Your task to perform on an android device: empty trash in the gmail app Image 0: 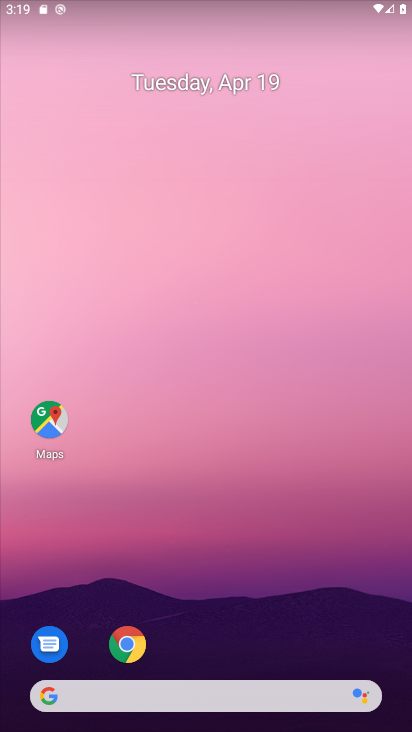
Step 0: drag from (217, 667) to (340, 104)
Your task to perform on an android device: empty trash in the gmail app Image 1: 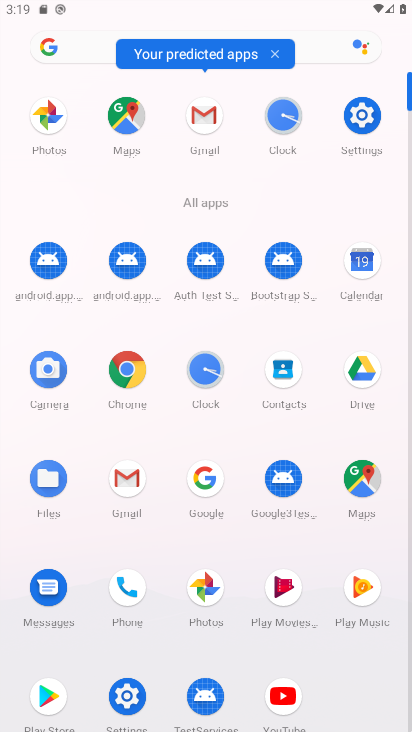
Step 1: click (132, 490)
Your task to perform on an android device: empty trash in the gmail app Image 2: 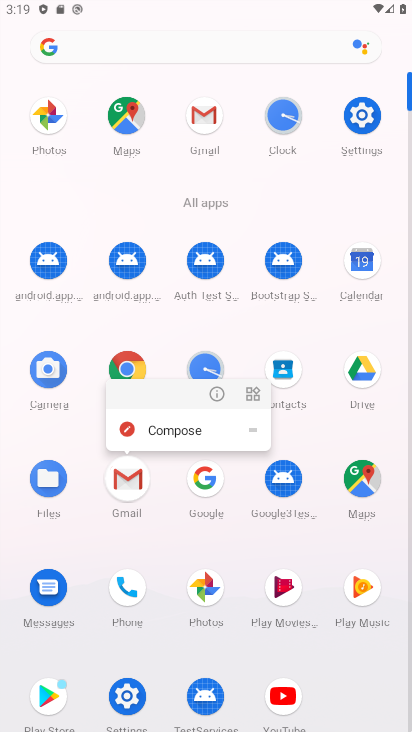
Step 2: click (125, 479)
Your task to perform on an android device: empty trash in the gmail app Image 3: 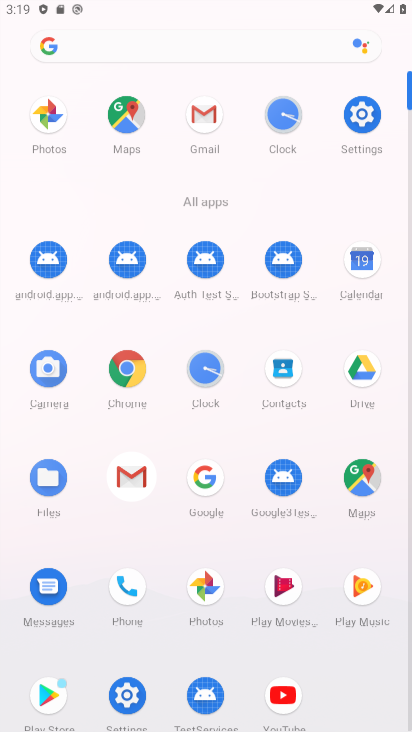
Step 3: click (125, 479)
Your task to perform on an android device: empty trash in the gmail app Image 4: 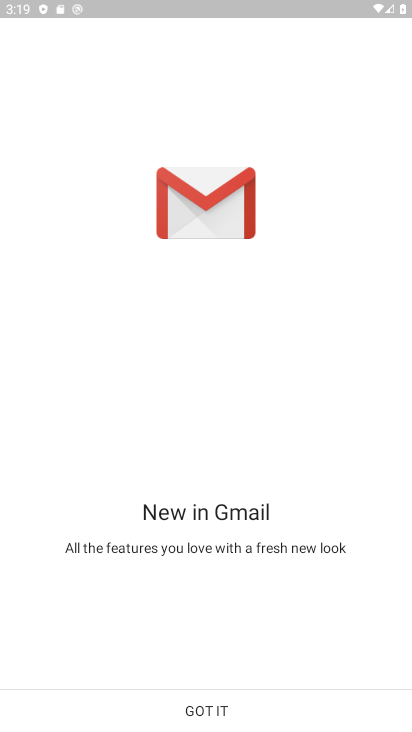
Step 4: click (198, 704)
Your task to perform on an android device: empty trash in the gmail app Image 5: 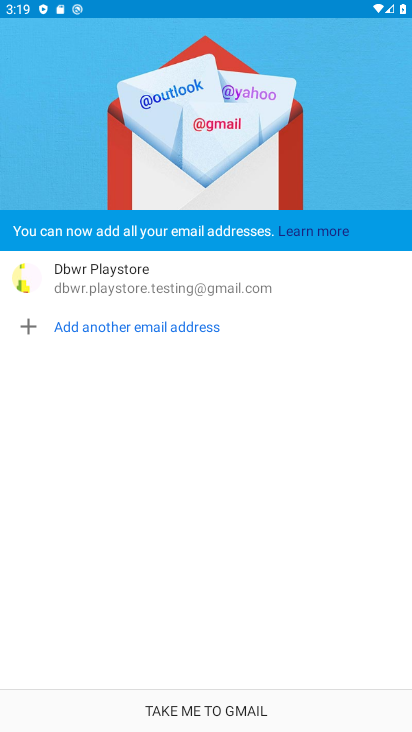
Step 5: click (243, 711)
Your task to perform on an android device: empty trash in the gmail app Image 6: 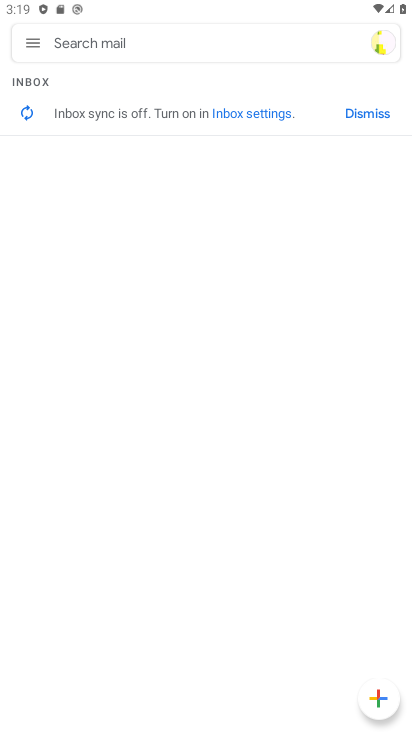
Step 6: click (37, 44)
Your task to perform on an android device: empty trash in the gmail app Image 7: 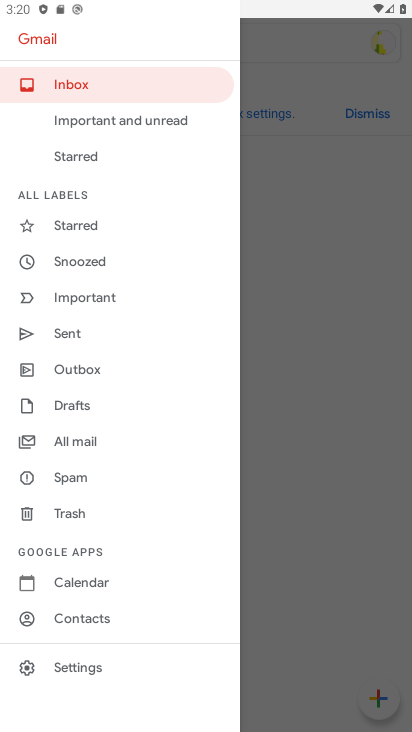
Step 7: click (99, 510)
Your task to perform on an android device: empty trash in the gmail app Image 8: 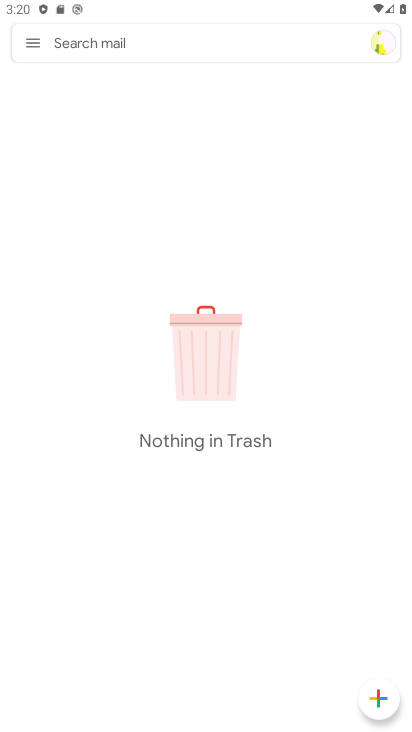
Step 8: task complete